Your task to perform on an android device: Open battery settings Image 0: 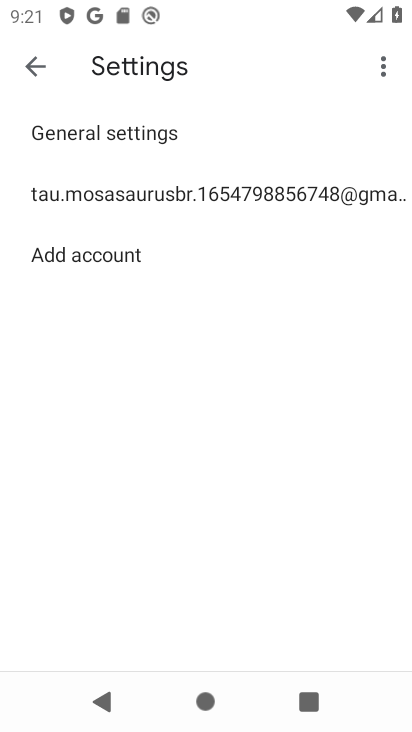
Step 0: press home button
Your task to perform on an android device: Open battery settings Image 1: 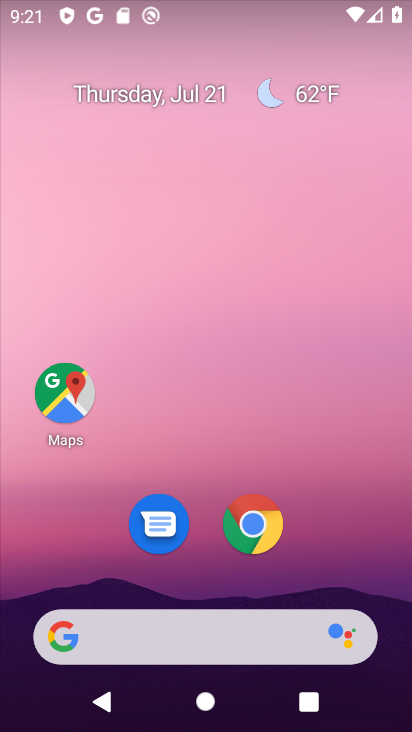
Step 1: drag from (190, 623) to (296, 123)
Your task to perform on an android device: Open battery settings Image 2: 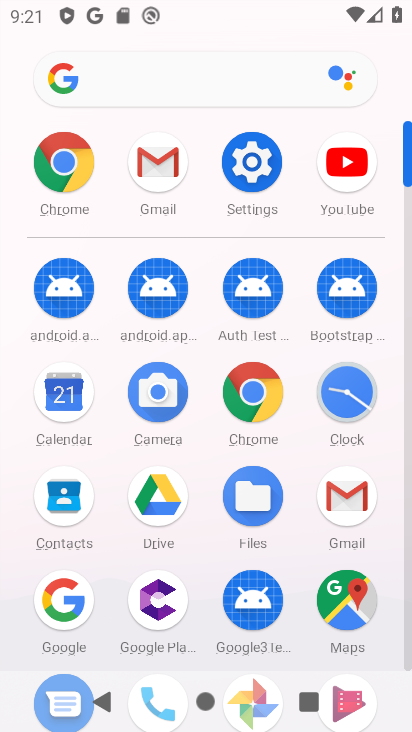
Step 2: click (243, 173)
Your task to perform on an android device: Open battery settings Image 3: 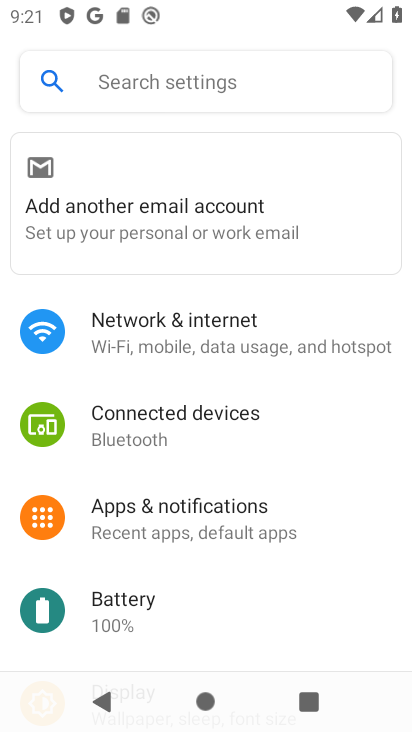
Step 3: drag from (210, 590) to (253, 114)
Your task to perform on an android device: Open battery settings Image 4: 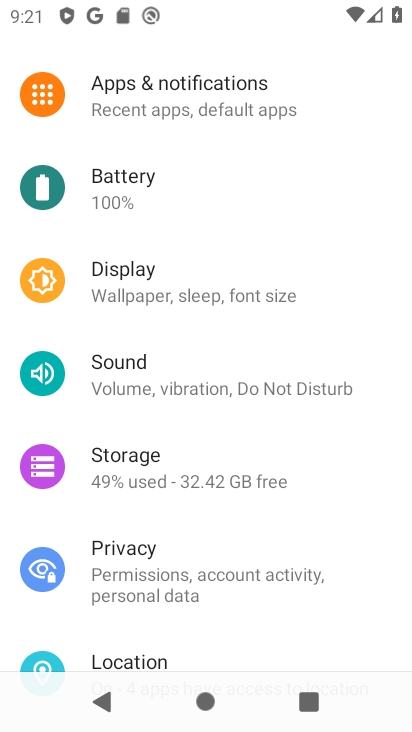
Step 4: click (122, 177)
Your task to perform on an android device: Open battery settings Image 5: 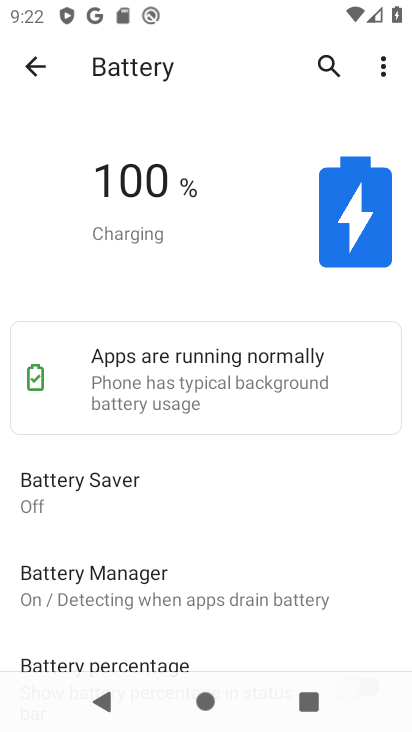
Step 5: task complete